Your task to perform on an android device: Open the web browser Image 0: 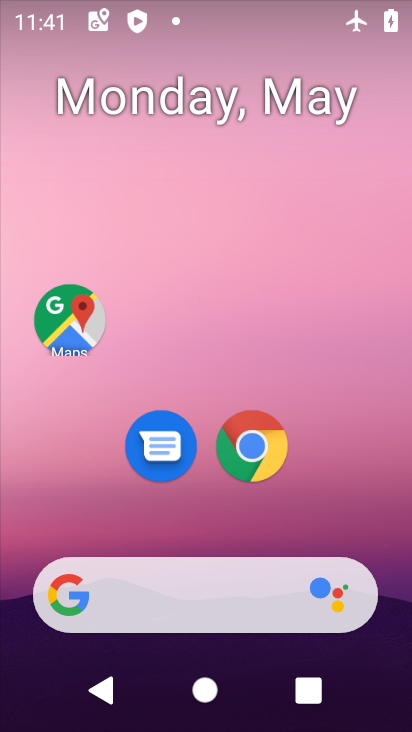
Step 0: click (251, 446)
Your task to perform on an android device: Open the web browser Image 1: 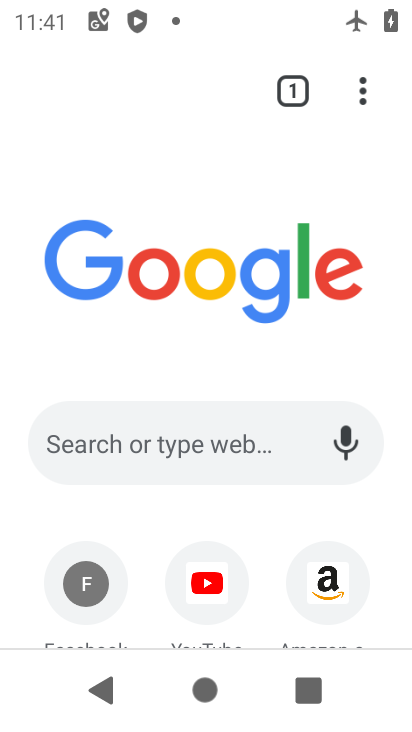
Step 1: task complete